Your task to perform on an android device: remove spam from my inbox in the gmail app Image 0: 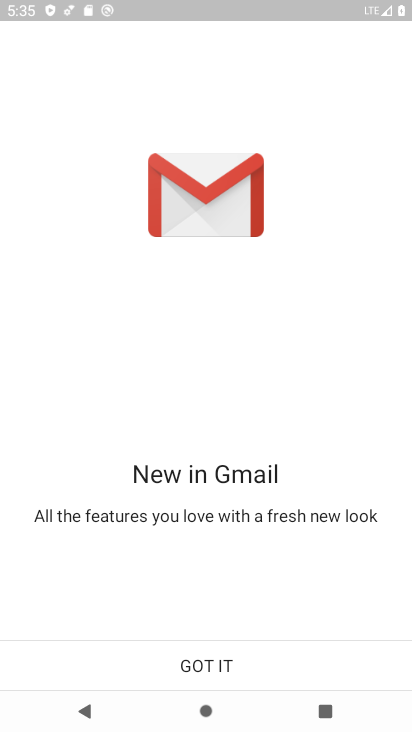
Step 0: press home button
Your task to perform on an android device: remove spam from my inbox in the gmail app Image 1: 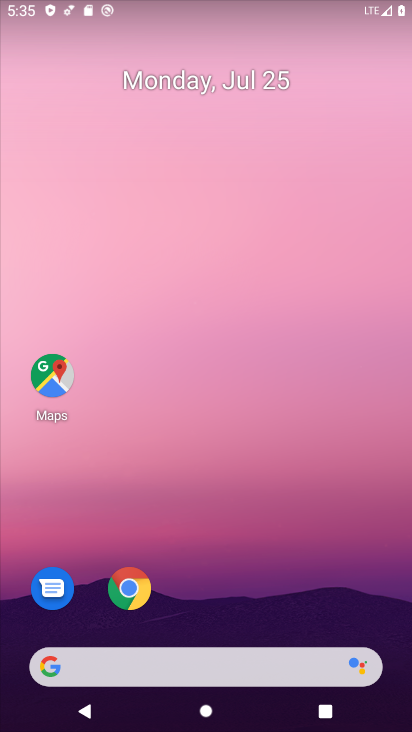
Step 1: drag from (150, 670) to (275, 4)
Your task to perform on an android device: remove spam from my inbox in the gmail app Image 2: 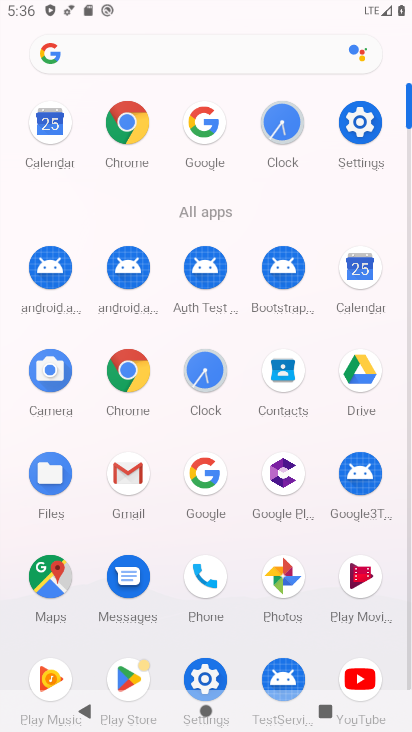
Step 2: click (128, 469)
Your task to perform on an android device: remove spam from my inbox in the gmail app Image 3: 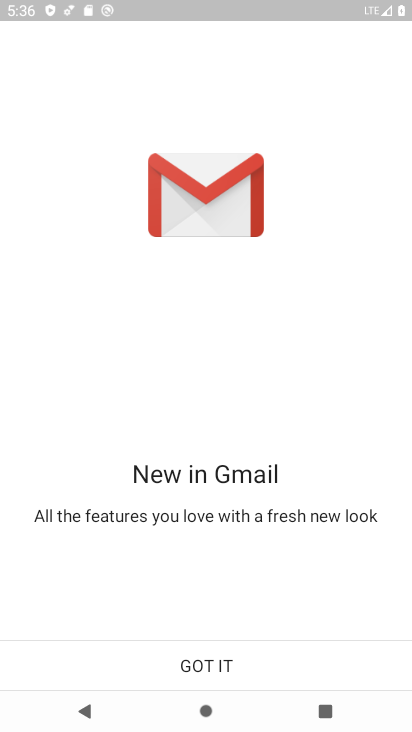
Step 3: click (201, 663)
Your task to perform on an android device: remove spam from my inbox in the gmail app Image 4: 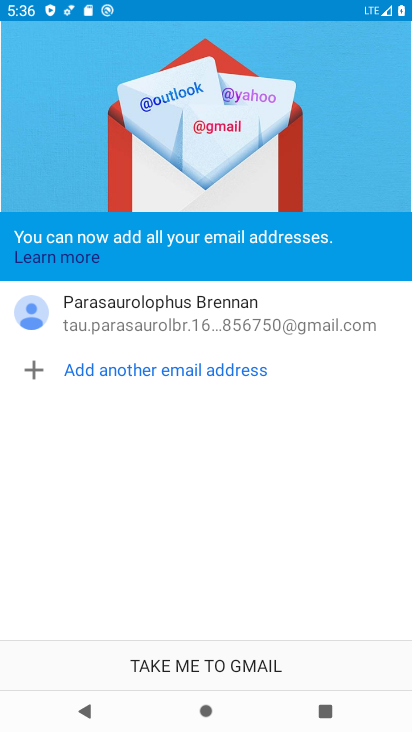
Step 4: click (201, 663)
Your task to perform on an android device: remove spam from my inbox in the gmail app Image 5: 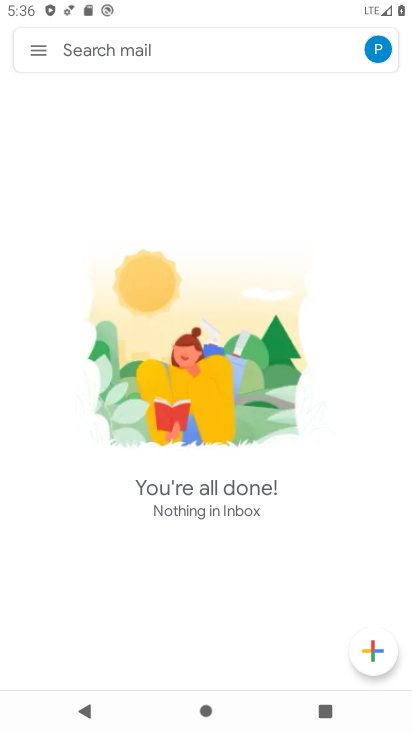
Step 5: click (39, 44)
Your task to perform on an android device: remove spam from my inbox in the gmail app Image 6: 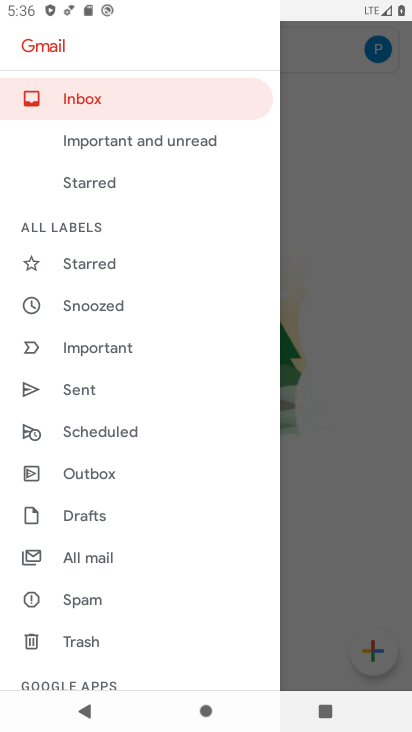
Step 6: click (77, 599)
Your task to perform on an android device: remove spam from my inbox in the gmail app Image 7: 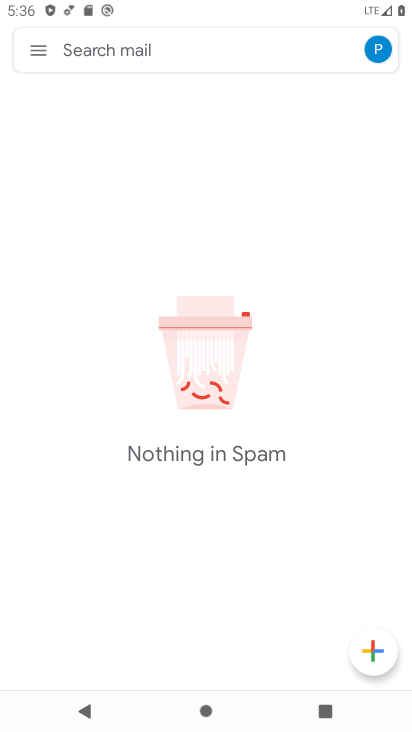
Step 7: task complete